Your task to perform on an android device: see creations saved in the google photos Image 0: 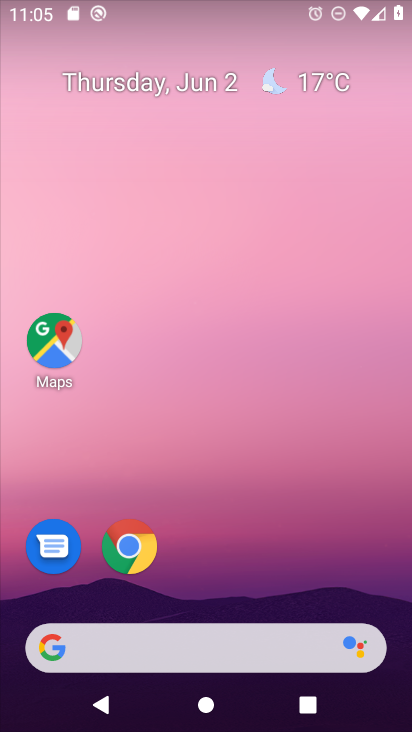
Step 0: drag from (269, 534) to (185, 57)
Your task to perform on an android device: see creations saved in the google photos Image 1: 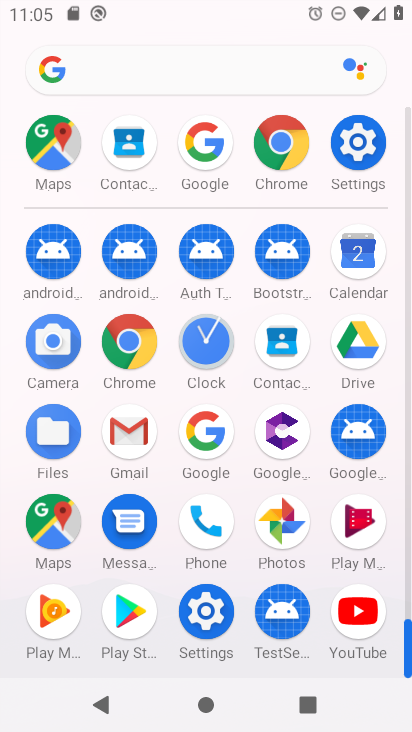
Step 1: click (281, 515)
Your task to perform on an android device: see creations saved in the google photos Image 2: 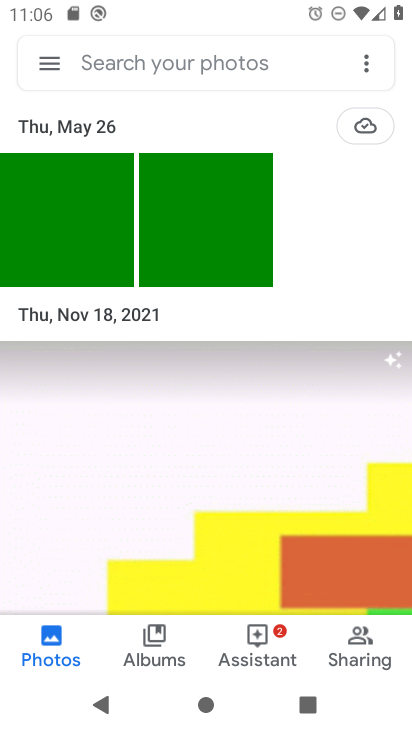
Step 2: task complete